Your task to perform on an android device: Go to wifi settings Image 0: 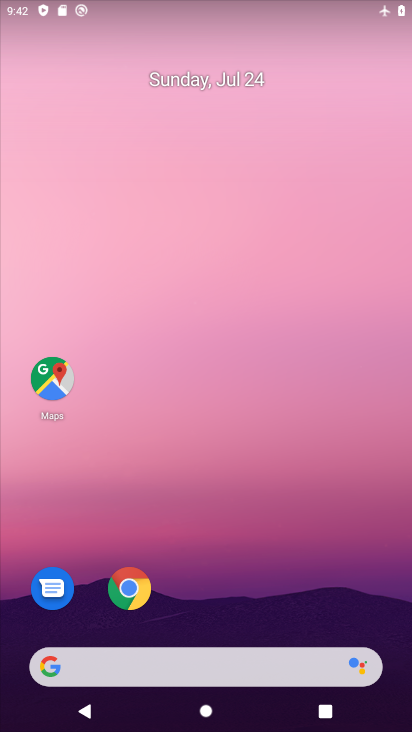
Step 0: drag from (283, 230) to (283, 41)
Your task to perform on an android device: Go to wifi settings Image 1: 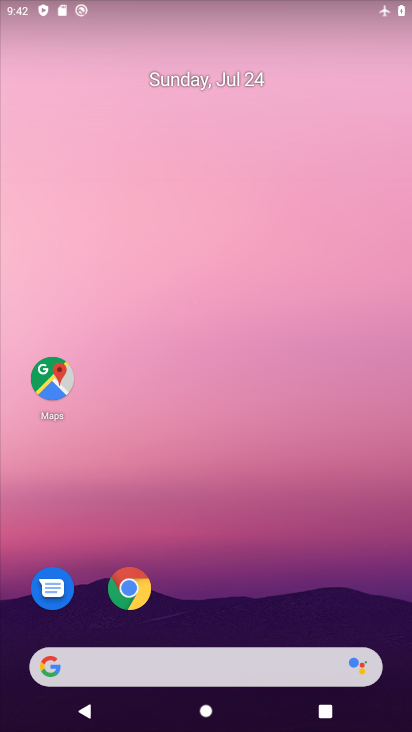
Step 1: drag from (314, 556) to (228, 105)
Your task to perform on an android device: Go to wifi settings Image 2: 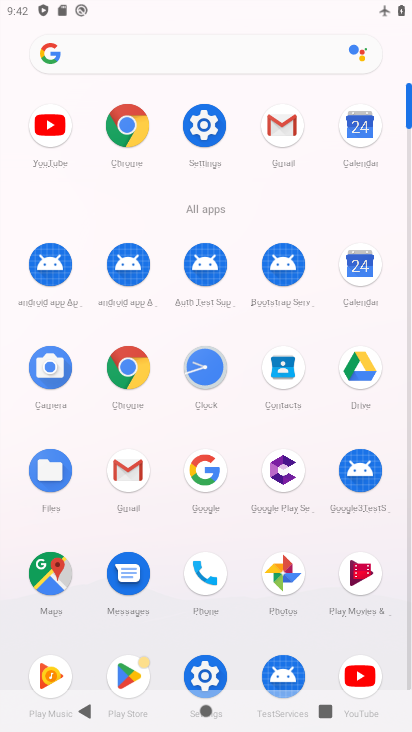
Step 2: click (215, 116)
Your task to perform on an android device: Go to wifi settings Image 3: 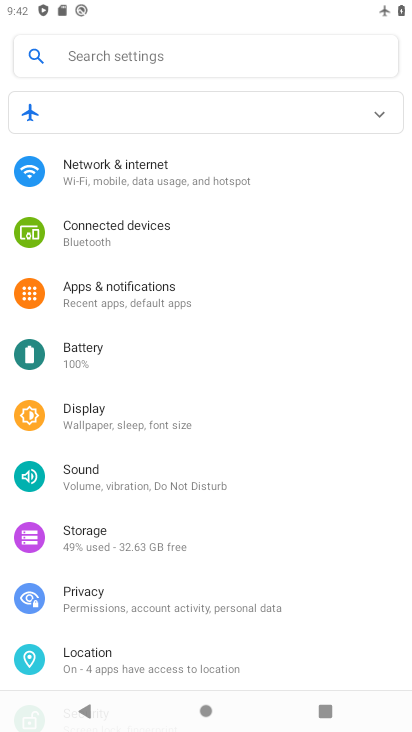
Step 3: click (151, 175)
Your task to perform on an android device: Go to wifi settings Image 4: 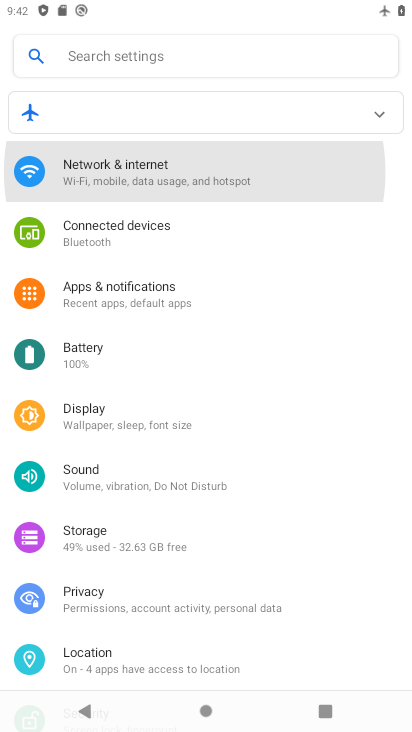
Step 4: click (151, 175)
Your task to perform on an android device: Go to wifi settings Image 5: 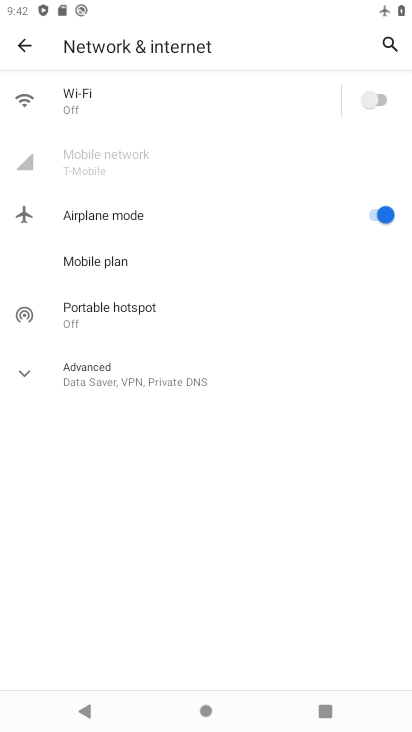
Step 5: click (367, 98)
Your task to perform on an android device: Go to wifi settings Image 6: 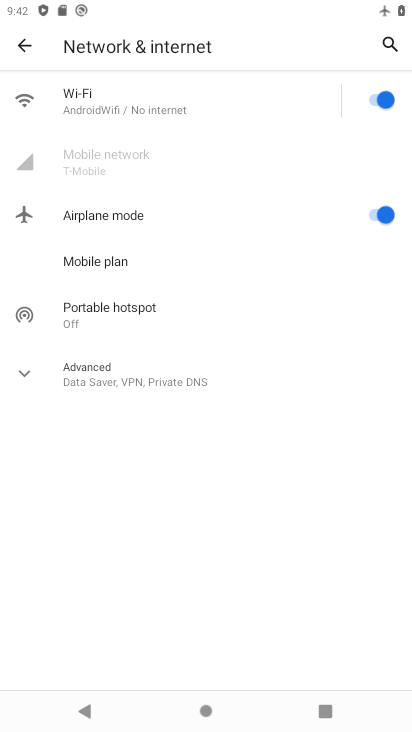
Step 6: click (382, 213)
Your task to perform on an android device: Go to wifi settings Image 7: 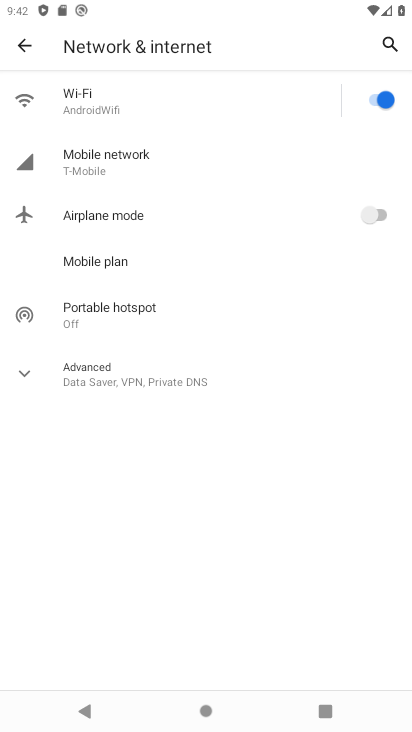
Step 7: task complete